Your task to perform on an android device: turn notification dots off Image 0: 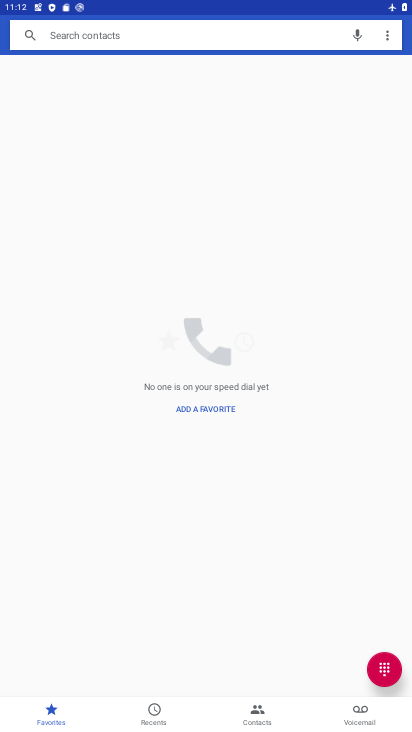
Step 0: press home button
Your task to perform on an android device: turn notification dots off Image 1: 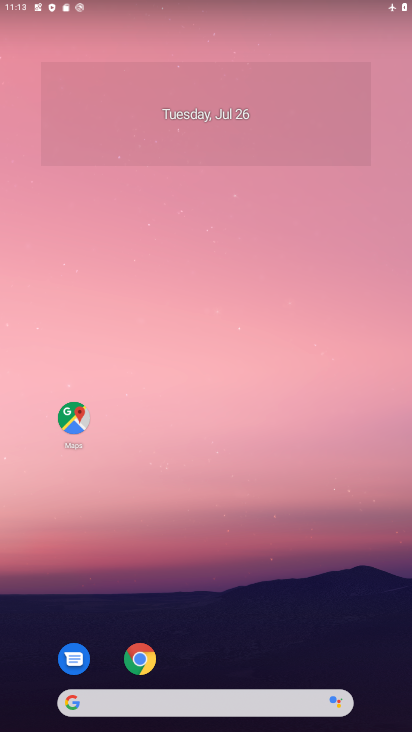
Step 1: drag from (210, 686) to (260, 39)
Your task to perform on an android device: turn notification dots off Image 2: 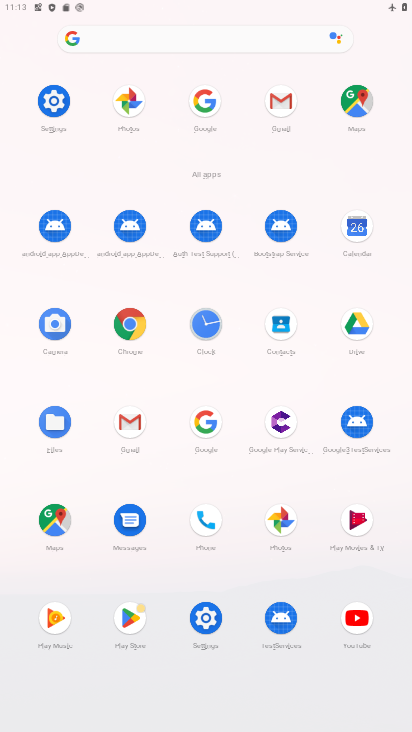
Step 2: click (55, 101)
Your task to perform on an android device: turn notification dots off Image 3: 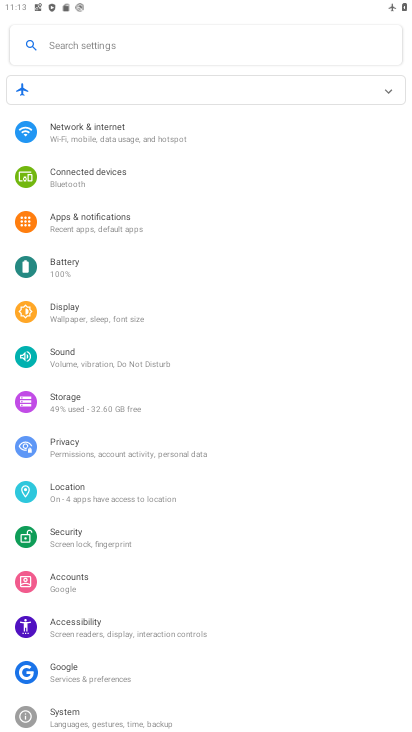
Step 3: click (78, 225)
Your task to perform on an android device: turn notification dots off Image 4: 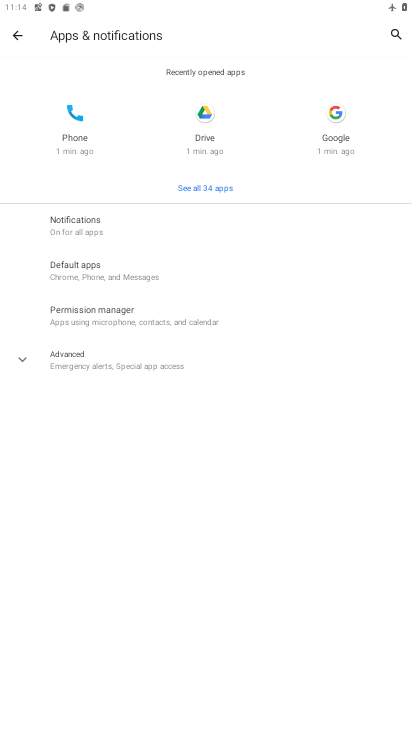
Step 4: click (76, 222)
Your task to perform on an android device: turn notification dots off Image 5: 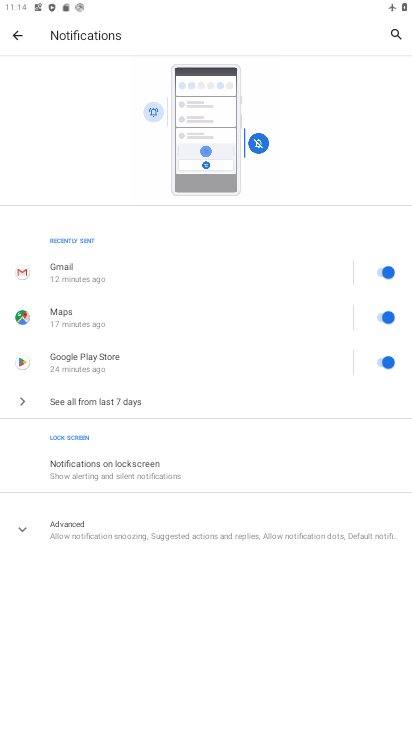
Step 5: click (187, 536)
Your task to perform on an android device: turn notification dots off Image 6: 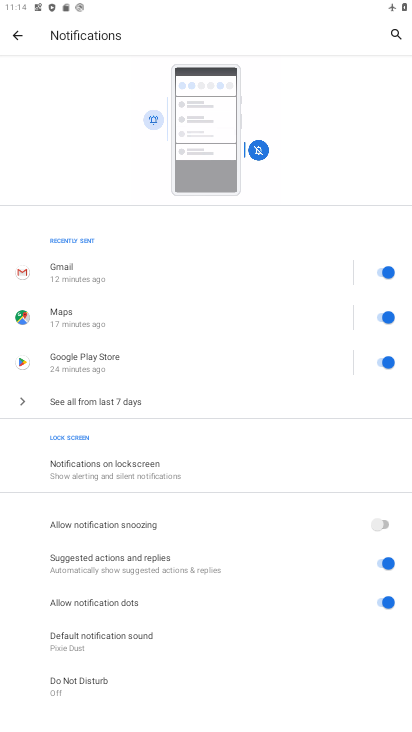
Step 6: click (379, 599)
Your task to perform on an android device: turn notification dots off Image 7: 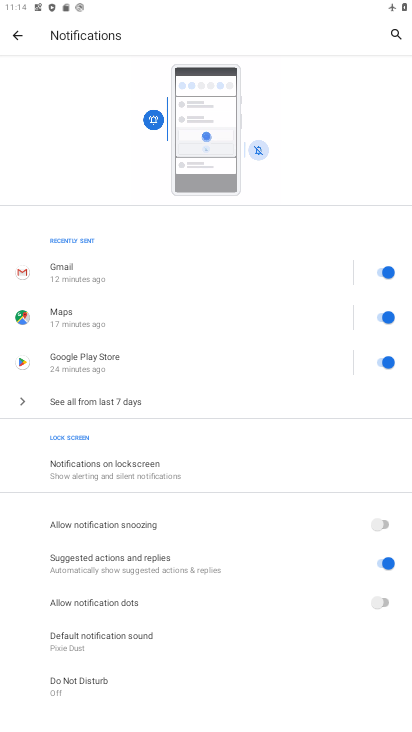
Step 7: task complete